Your task to perform on an android device: delete a single message in the gmail app Image 0: 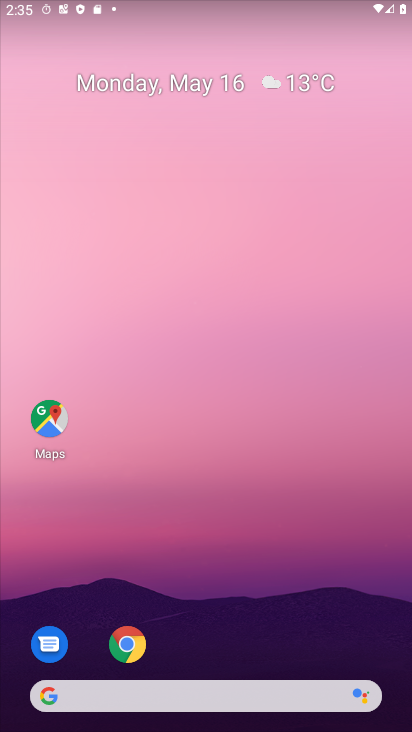
Step 0: drag from (189, 617) to (215, 168)
Your task to perform on an android device: delete a single message in the gmail app Image 1: 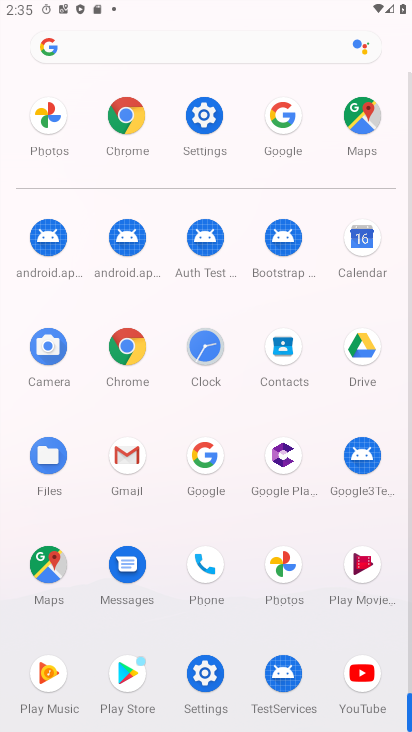
Step 1: click (123, 461)
Your task to perform on an android device: delete a single message in the gmail app Image 2: 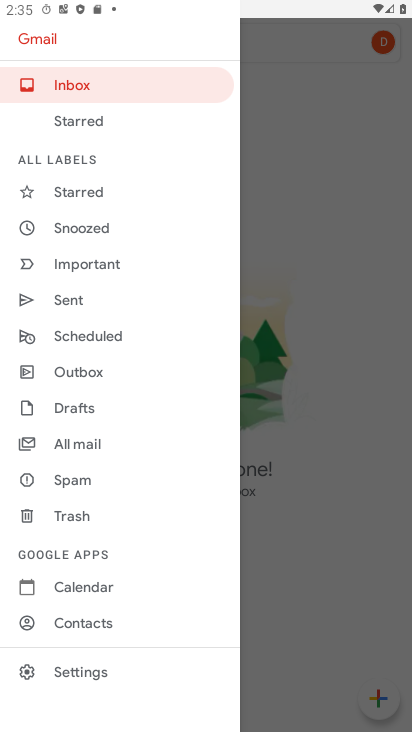
Step 2: click (105, 451)
Your task to perform on an android device: delete a single message in the gmail app Image 3: 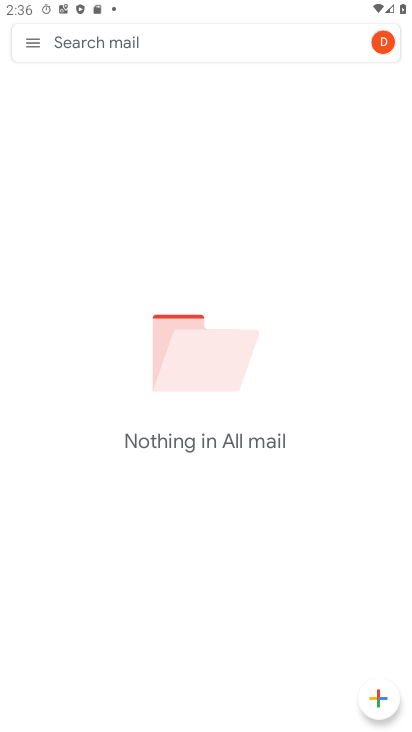
Step 3: task complete